Your task to perform on an android device: Open the Play Movies app and select the watchlist tab. Image 0: 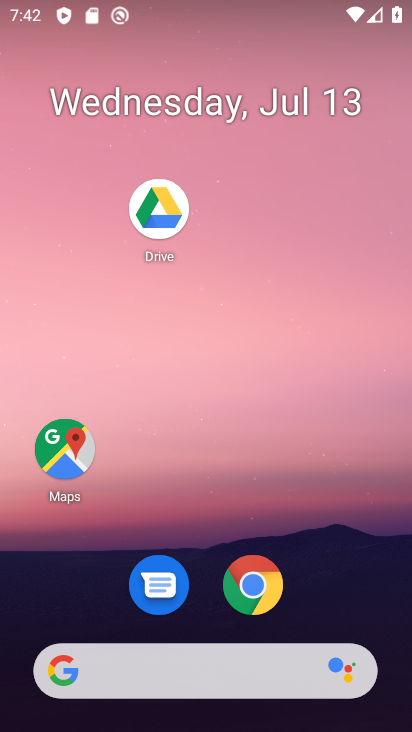
Step 0: drag from (171, 667) to (329, 128)
Your task to perform on an android device: Open the Play Movies app and select the watchlist tab. Image 1: 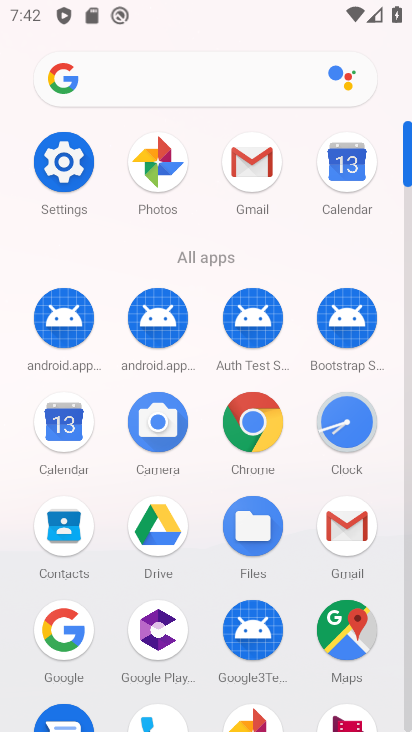
Step 1: drag from (303, 635) to (384, 129)
Your task to perform on an android device: Open the Play Movies app and select the watchlist tab. Image 2: 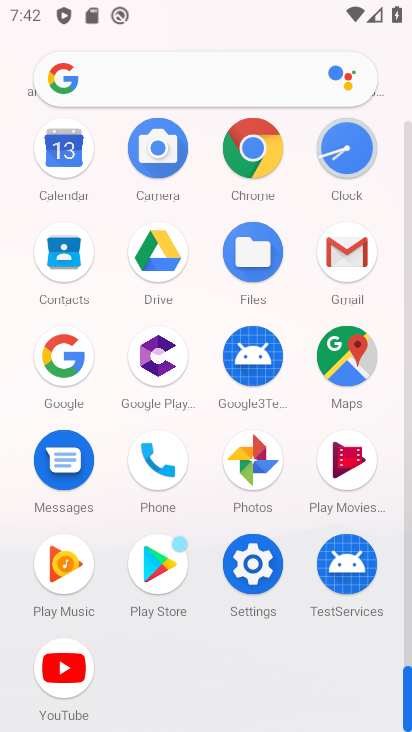
Step 2: click (345, 451)
Your task to perform on an android device: Open the Play Movies app and select the watchlist tab. Image 3: 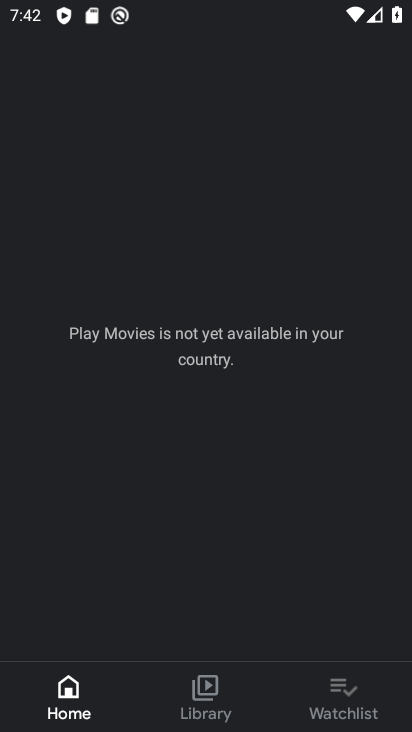
Step 3: click (351, 698)
Your task to perform on an android device: Open the Play Movies app and select the watchlist tab. Image 4: 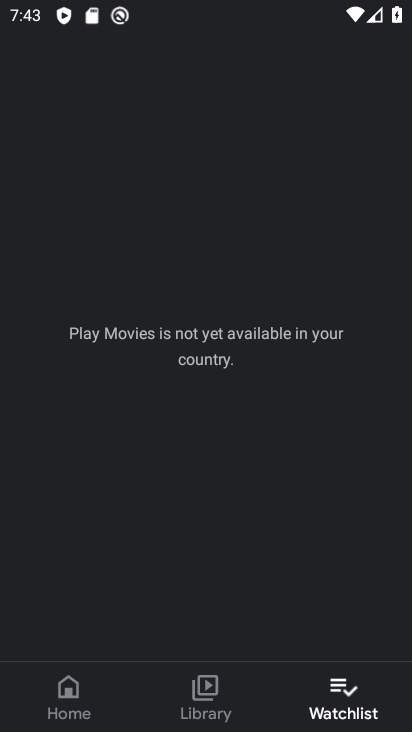
Step 4: task complete